Your task to perform on an android device: make emails show in primary in the gmail app Image 0: 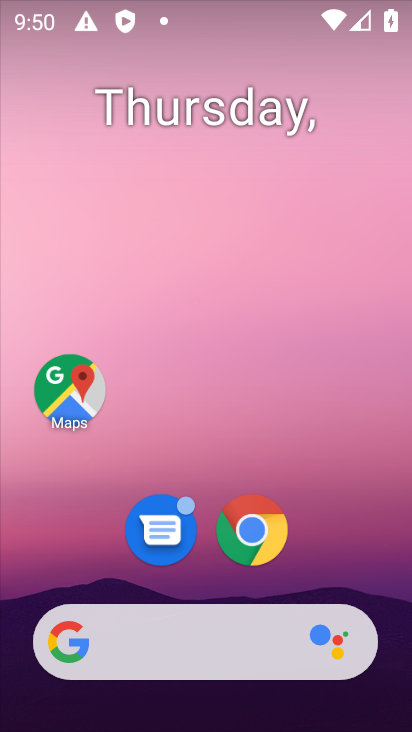
Step 0: press home button
Your task to perform on an android device: make emails show in primary in the gmail app Image 1: 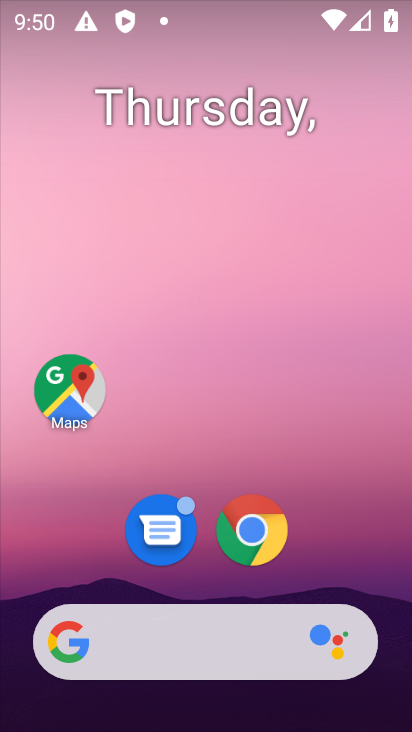
Step 1: drag from (350, 550) to (343, 6)
Your task to perform on an android device: make emails show in primary in the gmail app Image 2: 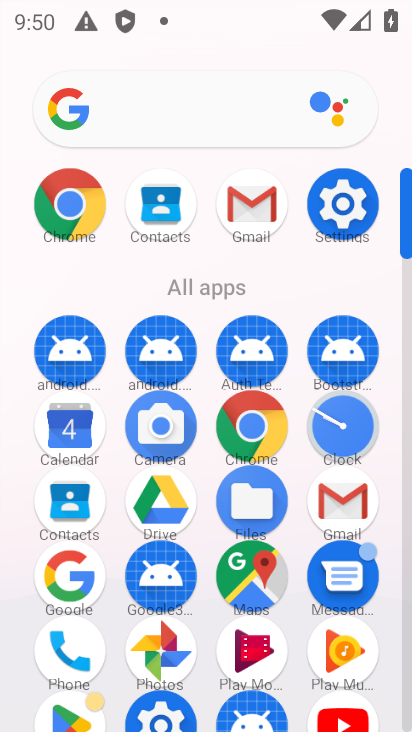
Step 2: click (254, 202)
Your task to perform on an android device: make emails show in primary in the gmail app Image 3: 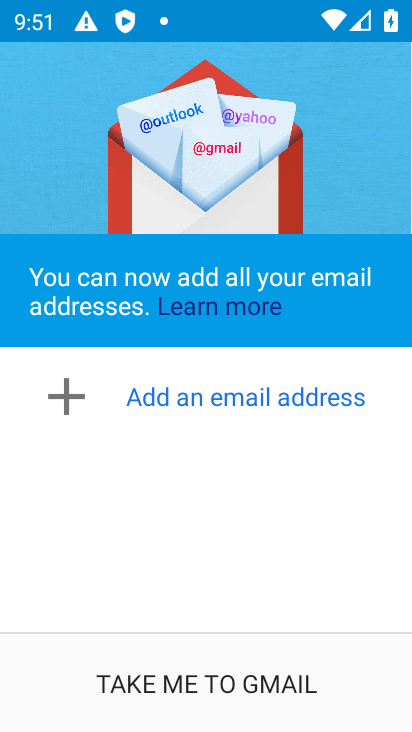
Step 3: click (231, 679)
Your task to perform on an android device: make emails show in primary in the gmail app Image 4: 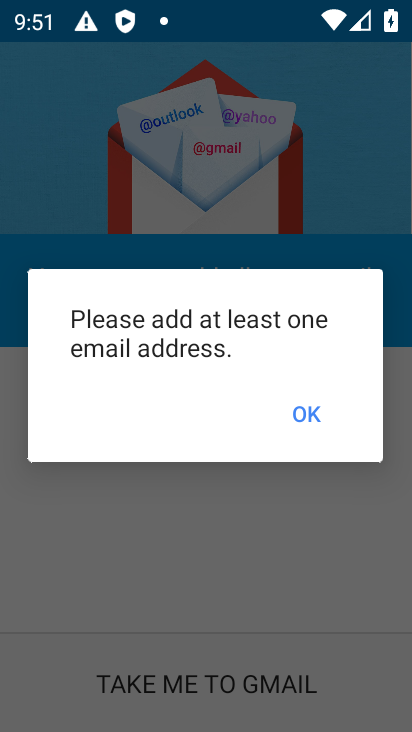
Step 4: click (302, 424)
Your task to perform on an android device: make emails show in primary in the gmail app Image 5: 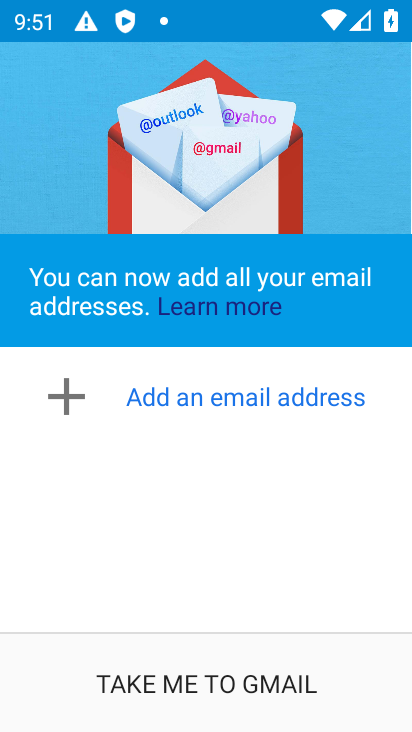
Step 5: drag from (192, 427) to (251, 597)
Your task to perform on an android device: make emails show in primary in the gmail app Image 6: 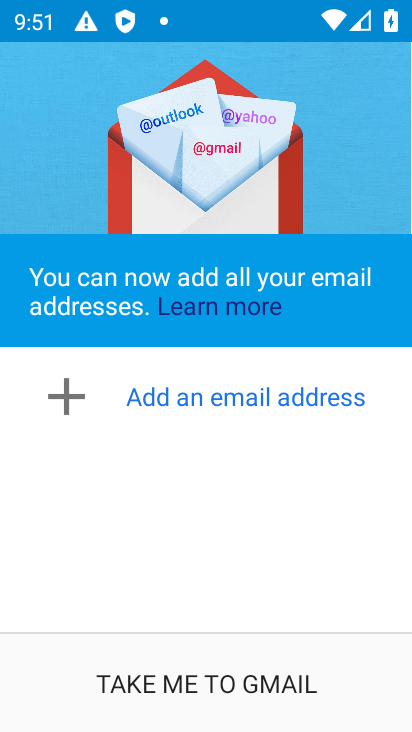
Step 6: click (273, 395)
Your task to perform on an android device: make emails show in primary in the gmail app Image 7: 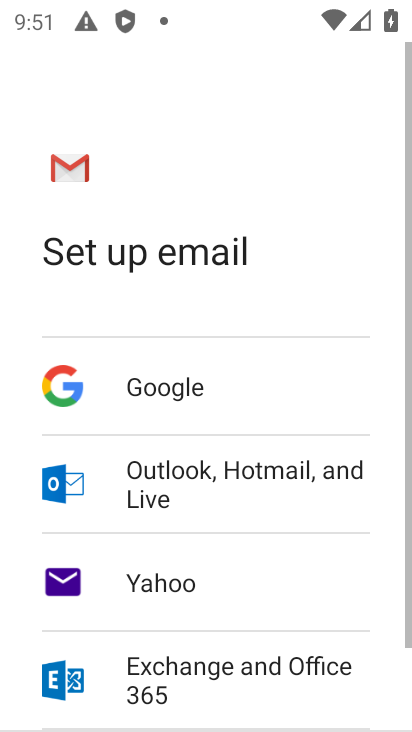
Step 7: task complete